Your task to perform on an android device: change keyboard looks Image 0: 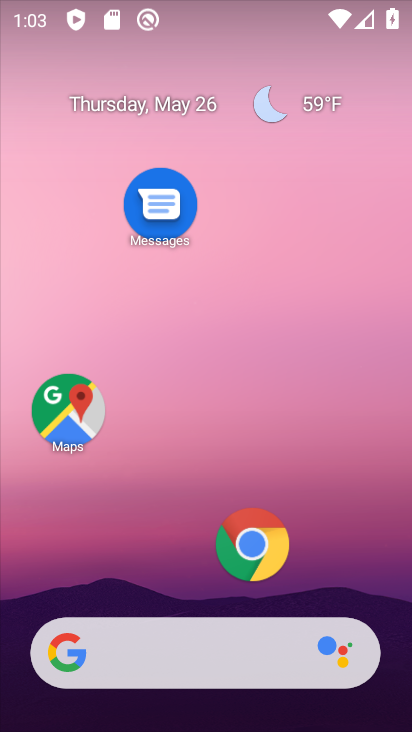
Step 0: drag from (158, 580) to (287, 56)
Your task to perform on an android device: change keyboard looks Image 1: 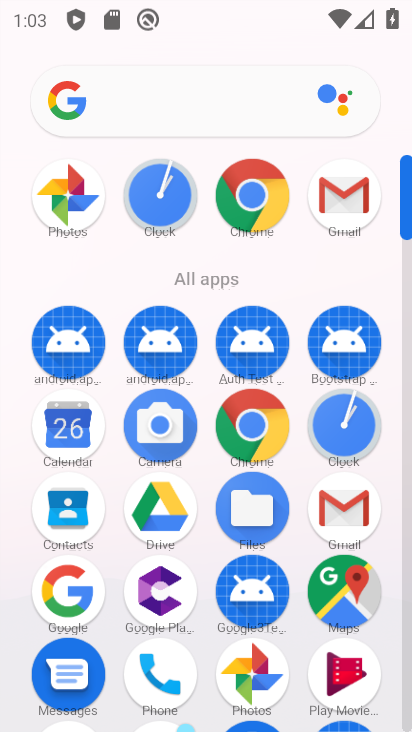
Step 1: drag from (192, 619) to (168, 233)
Your task to perform on an android device: change keyboard looks Image 2: 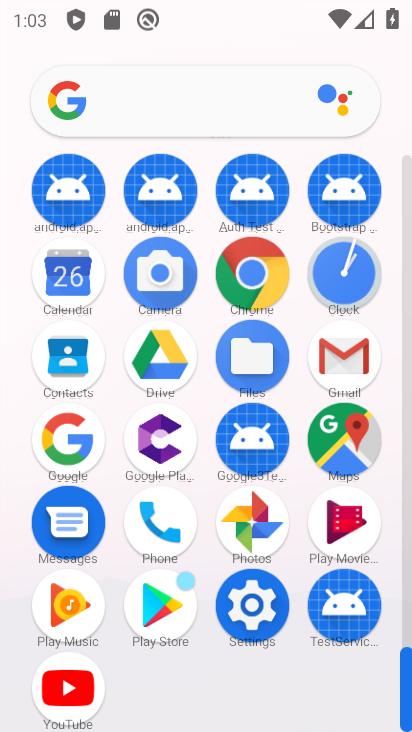
Step 2: click (264, 602)
Your task to perform on an android device: change keyboard looks Image 3: 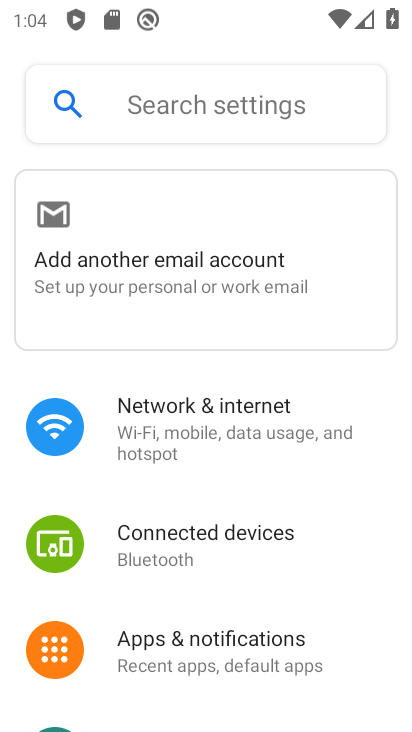
Step 3: drag from (264, 602) to (247, 96)
Your task to perform on an android device: change keyboard looks Image 4: 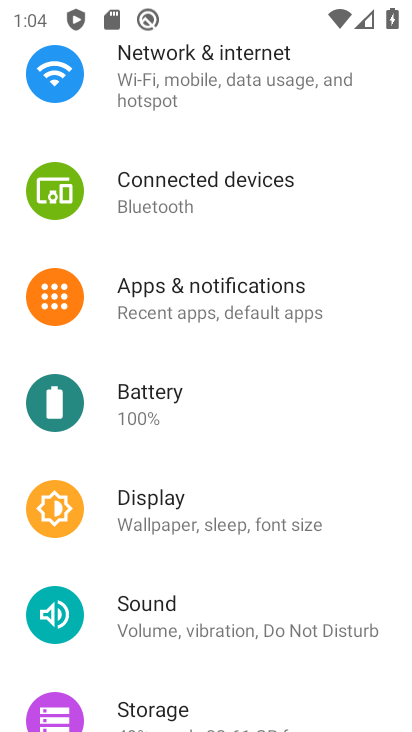
Step 4: drag from (194, 604) to (231, 90)
Your task to perform on an android device: change keyboard looks Image 5: 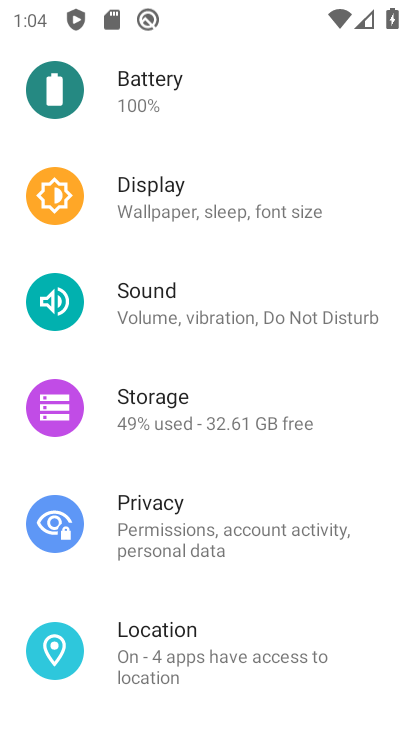
Step 5: drag from (131, 604) to (184, 125)
Your task to perform on an android device: change keyboard looks Image 6: 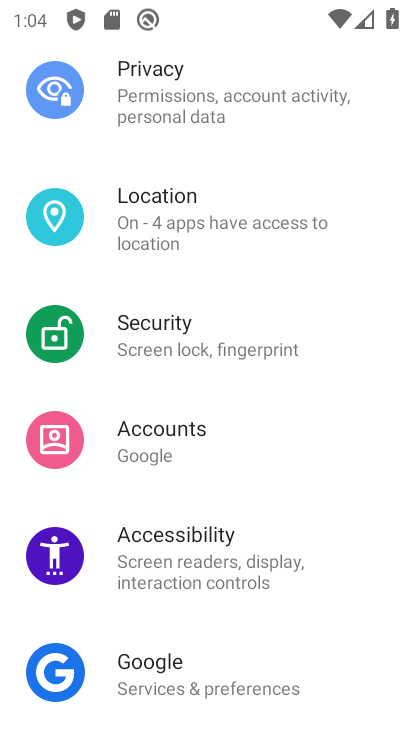
Step 6: drag from (83, 604) to (175, 114)
Your task to perform on an android device: change keyboard looks Image 7: 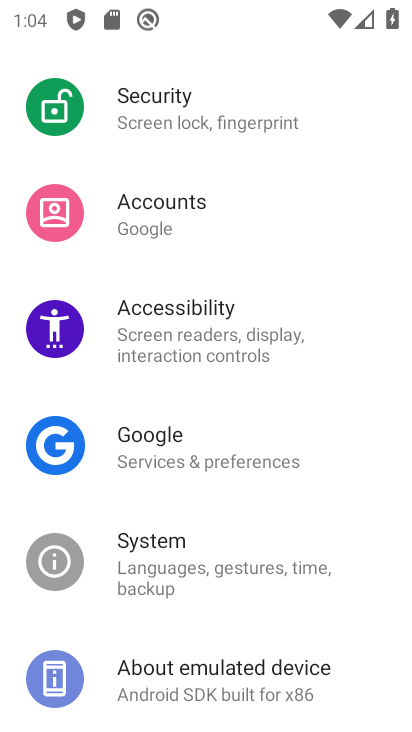
Step 7: click (181, 690)
Your task to perform on an android device: change keyboard looks Image 8: 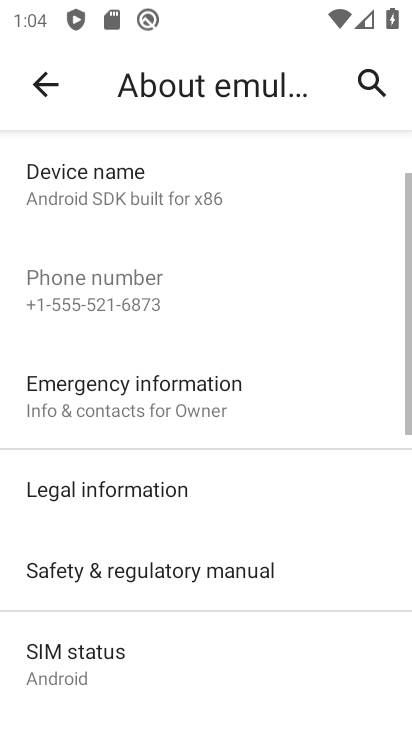
Step 8: click (54, 66)
Your task to perform on an android device: change keyboard looks Image 9: 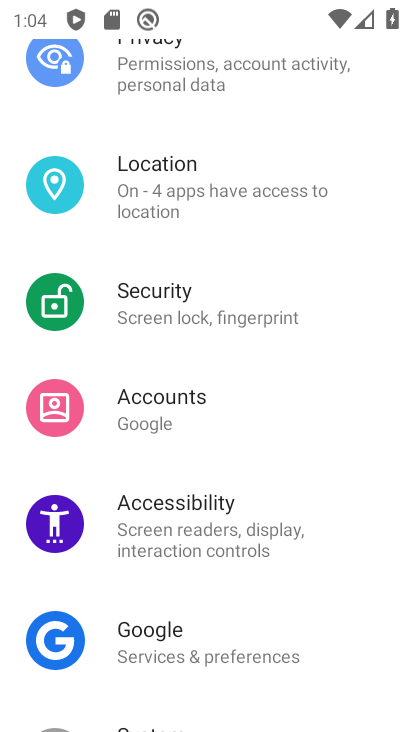
Step 9: drag from (107, 623) to (213, 202)
Your task to perform on an android device: change keyboard looks Image 10: 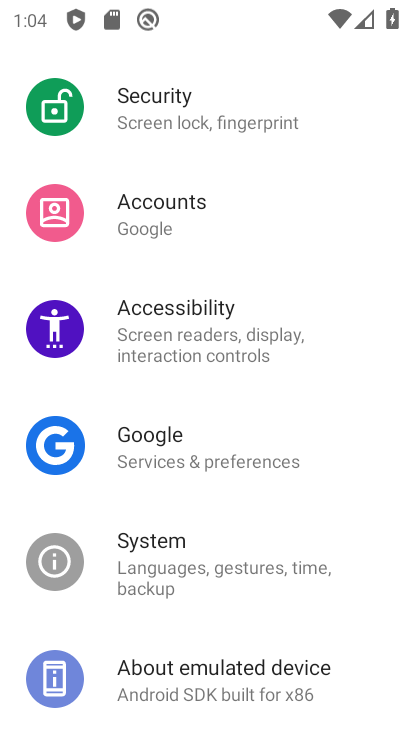
Step 10: click (86, 528)
Your task to perform on an android device: change keyboard looks Image 11: 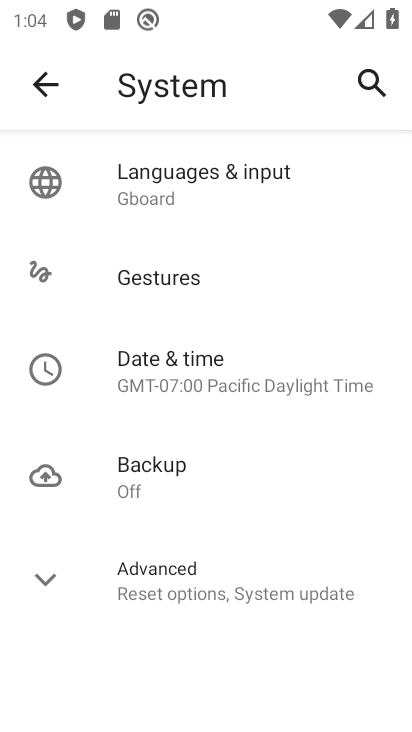
Step 11: click (187, 152)
Your task to perform on an android device: change keyboard looks Image 12: 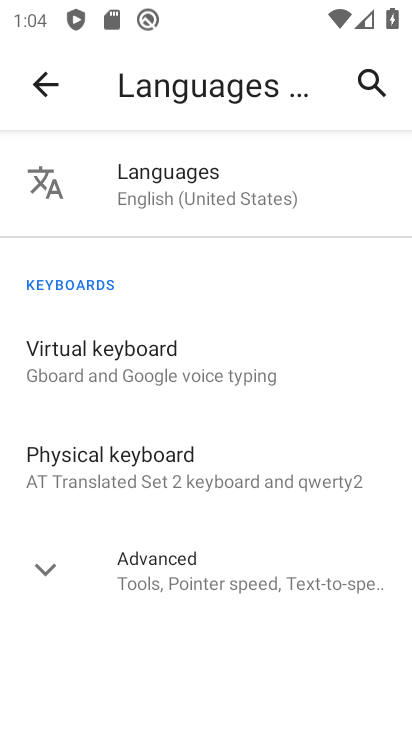
Step 12: click (158, 576)
Your task to perform on an android device: change keyboard looks Image 13: 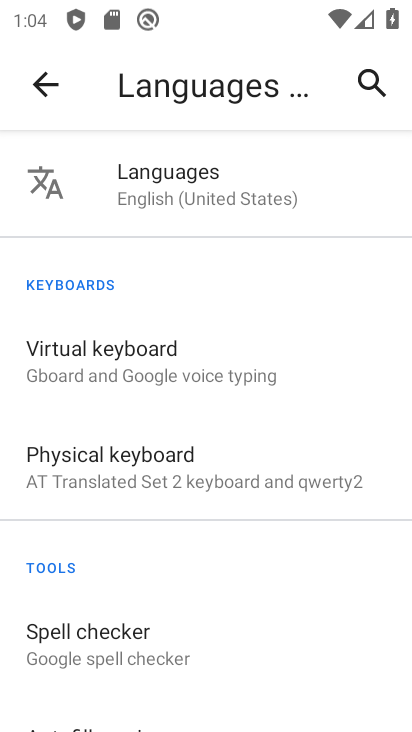
Step 13: click (220, 356)
Your task to perform on an android device: change keyboard looks Image 14: 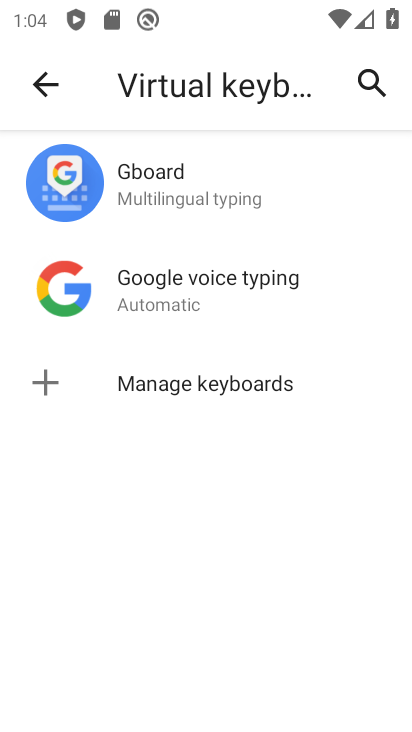
Step 14: click (197, 203)
Your task to perform on an android device: change keyboard looks Image 15: 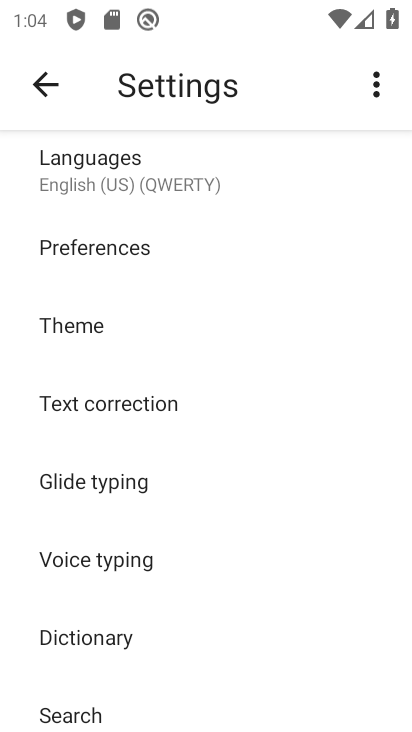
Step 15: click (132, 184)
Your task to perform on an android device: change keyboard looks Image 16: 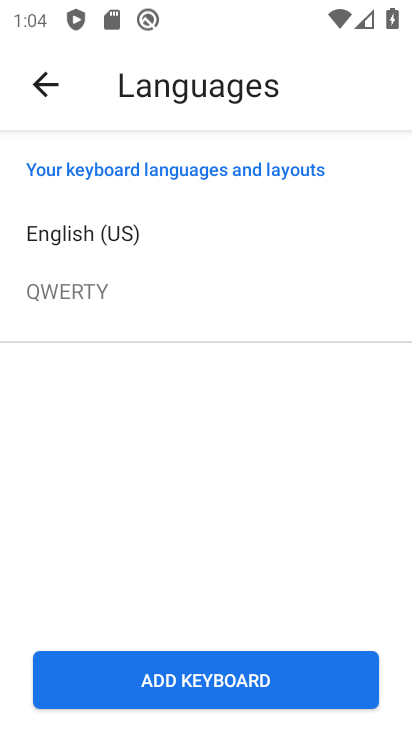
Step 16: click (48, 74)
Your task to perform on an android device: change keyboard looks Image 17: 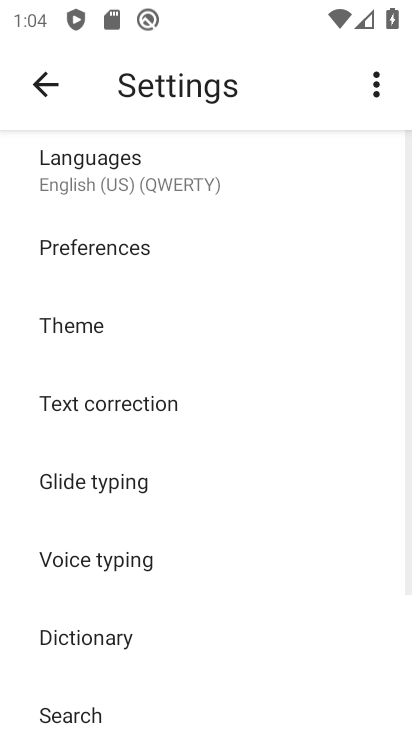
Step 17: click (63, 338)
Your task to perform on an android device: change keyboard looks Image 18: 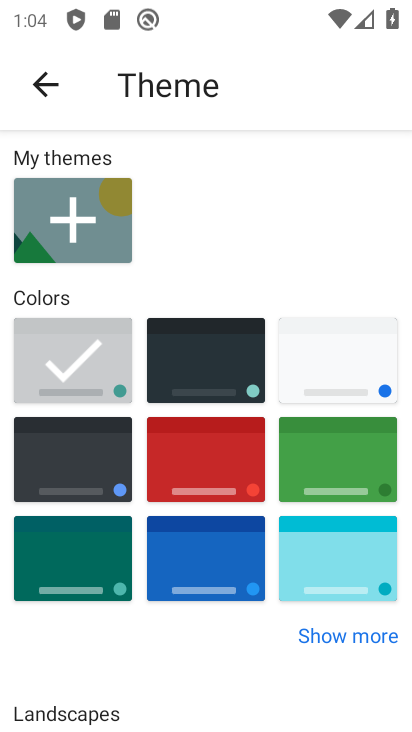
Step 18: click (239, 422)
Your task to perform on an android device: change keyboard looks Image 19: 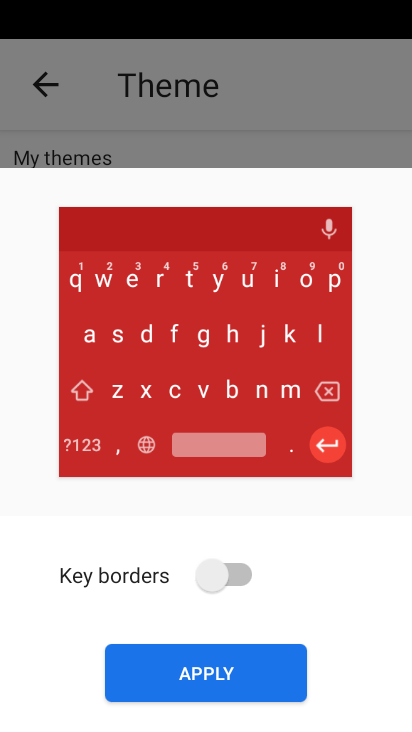
Step 19: click (159, 668)
Your task to perform on an android device: change keyboard looks Image 20: 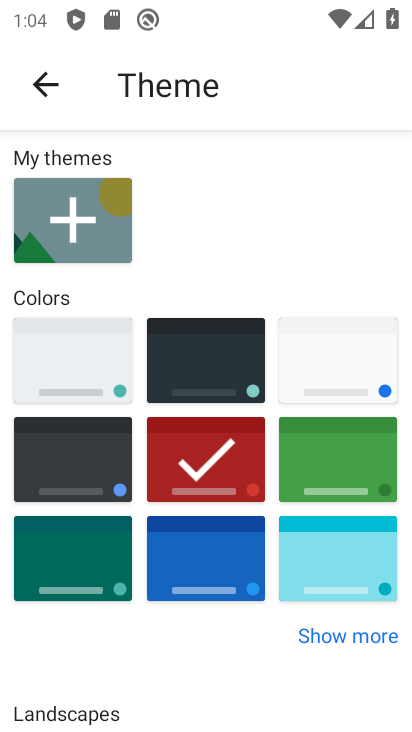
Step 20: task complete